Your task to perform on an android device: Where can I buy a nice beach sandals? Image 0: 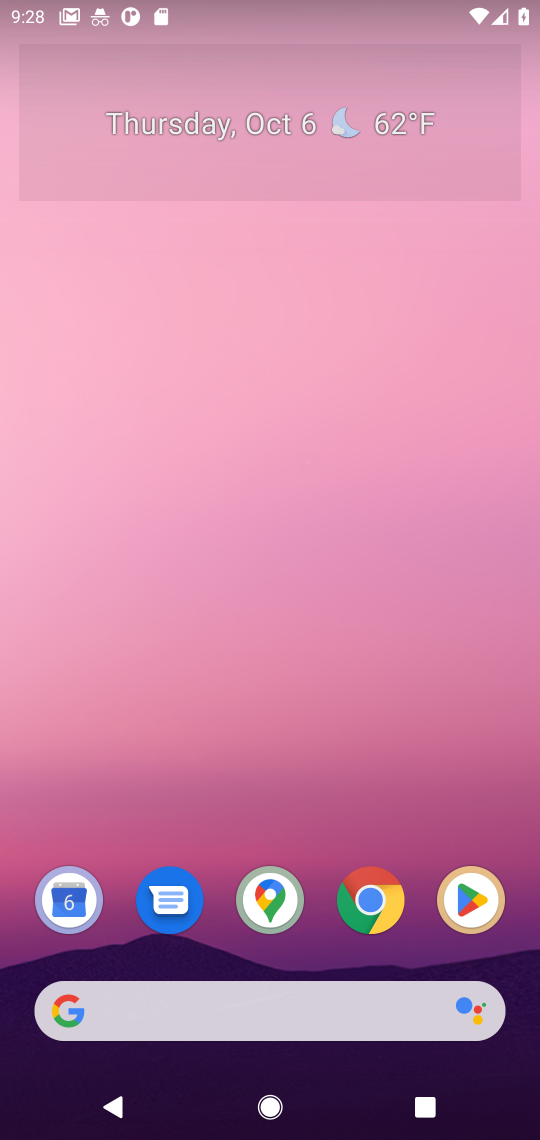
Step 0: press home button
Your task to perform on an android device: Where can I buy a nice beach sandals? Image 1: 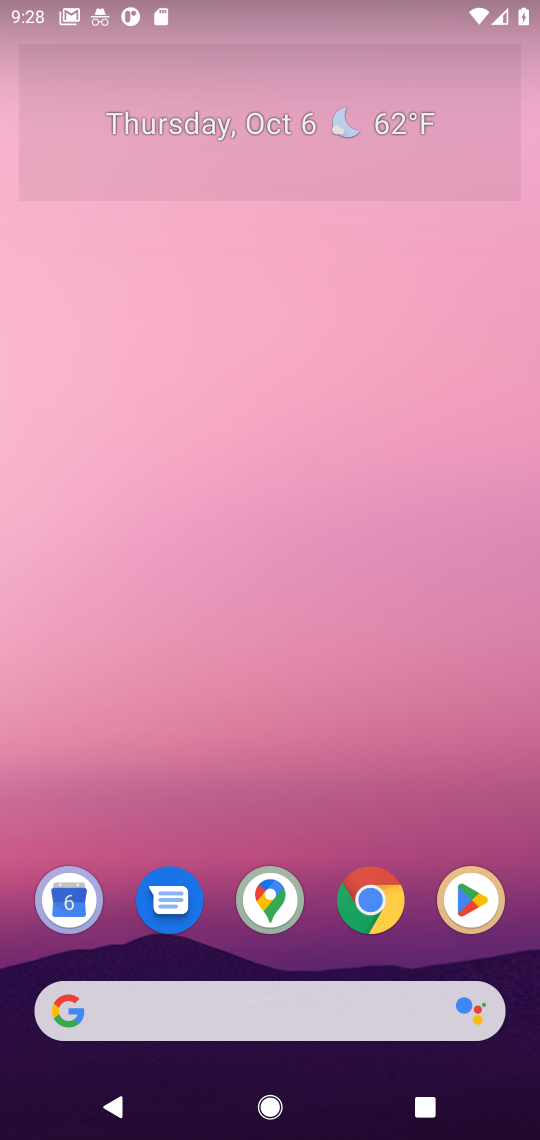
Step 1: click (316, 1016)
Your task to perform on an android device: Where can I buy a nice beach sandals? Image 2: 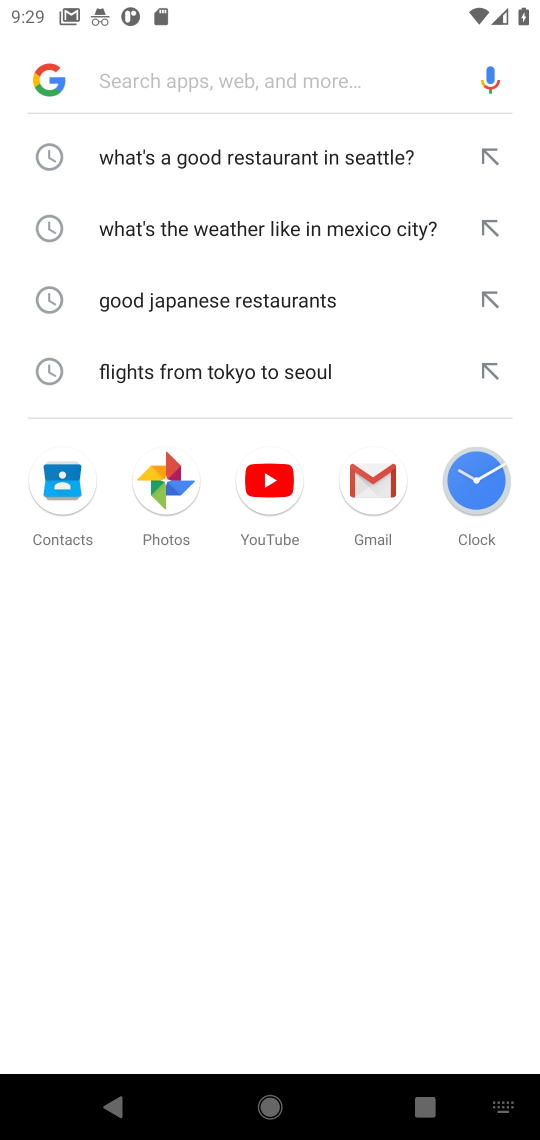
Step 2: type "Where can I buy a nice beach sandals?"
Your task to perform on an android device: Where can I buy a nice beach sandals? Image 3: 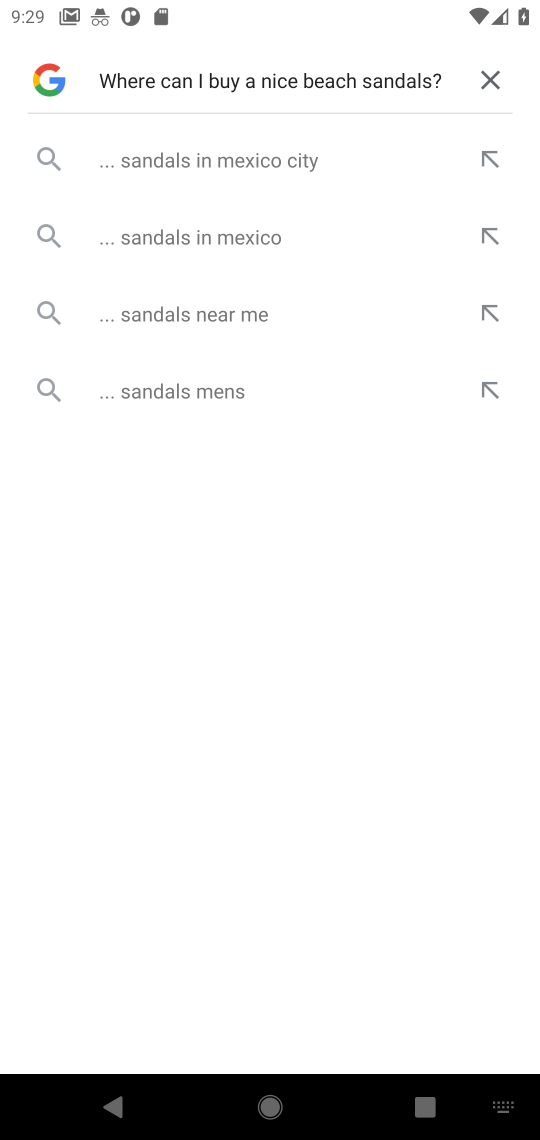
Step 3: press enter
Your task to perform on an android device: Where can I buy a nice beach sandals? Image 4: 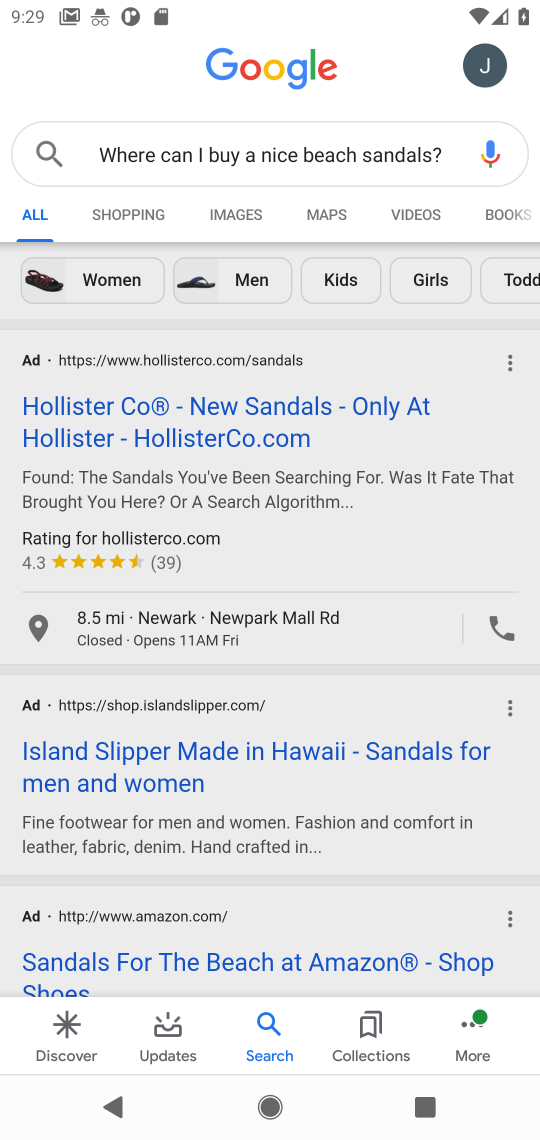
Step 4: drag from (434, 820) to (422, 577)
Your task to perform on an android device: Where can I buy a nice beach sandals? Image 5: 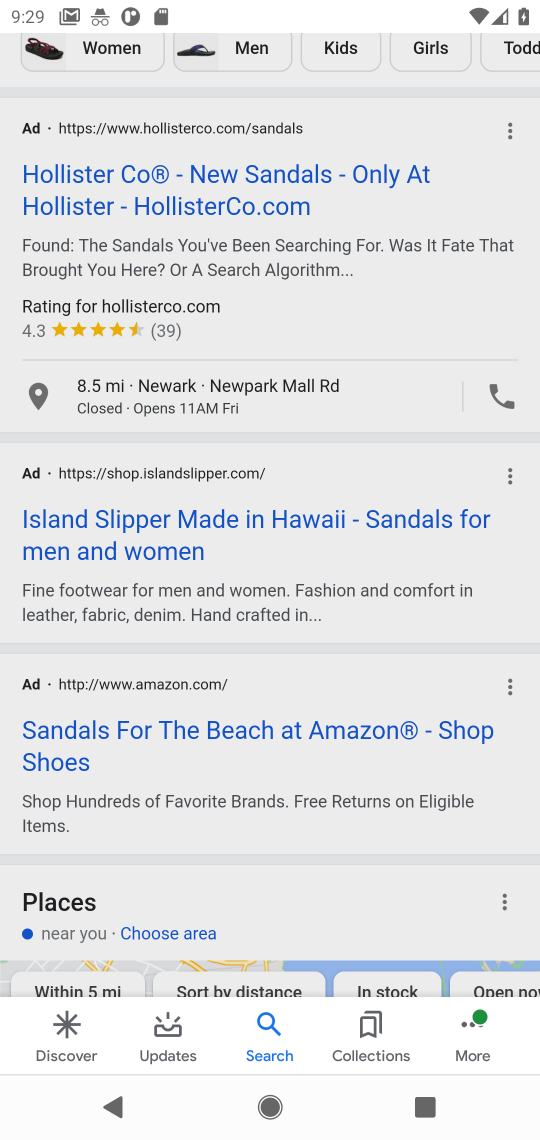
Step 5: drag from (329, 825) to (335, 546)
Your task to perform on an android device: Where can I buy a nice beach sandals? Image 6: 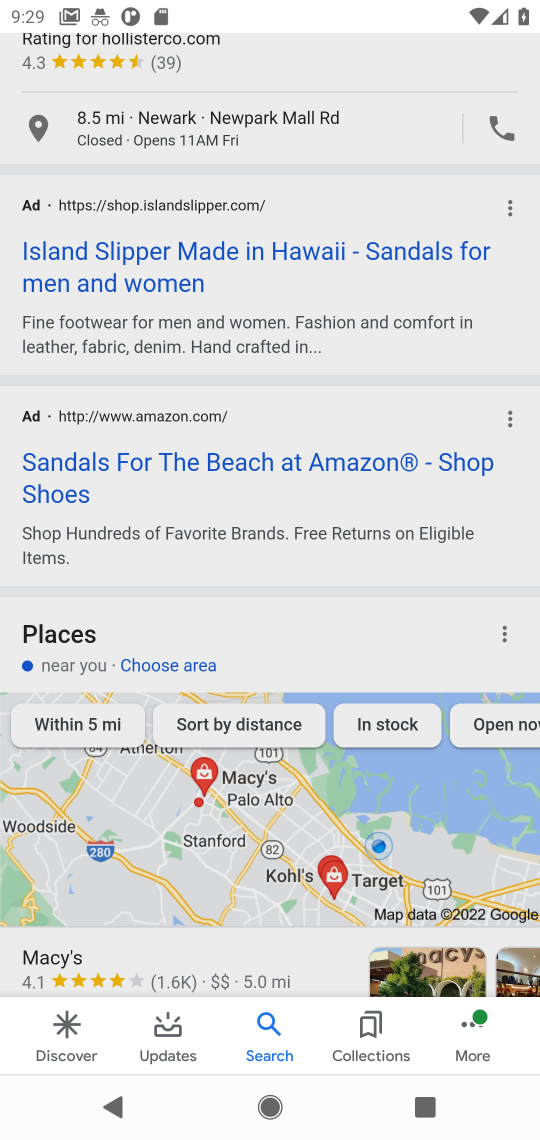
Step 6: click (318, 605)
Your task to perform on an android device: Where can I buy a nice beach sandals? Image 7: 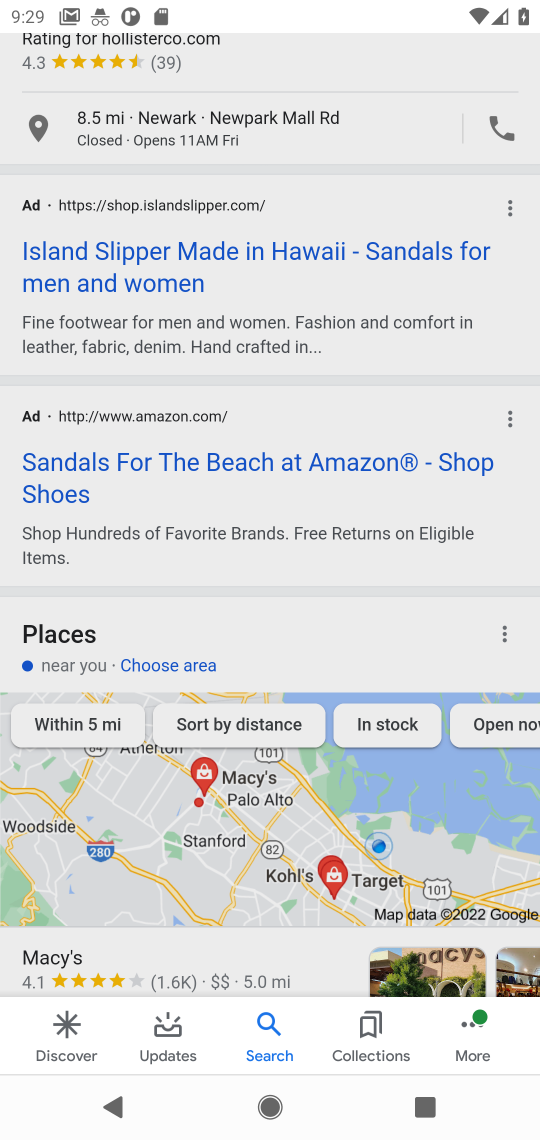
Step 7: click (291, 461)
Your task to perform on an android device: Where can I buy a nice beach sandals? Image 8: 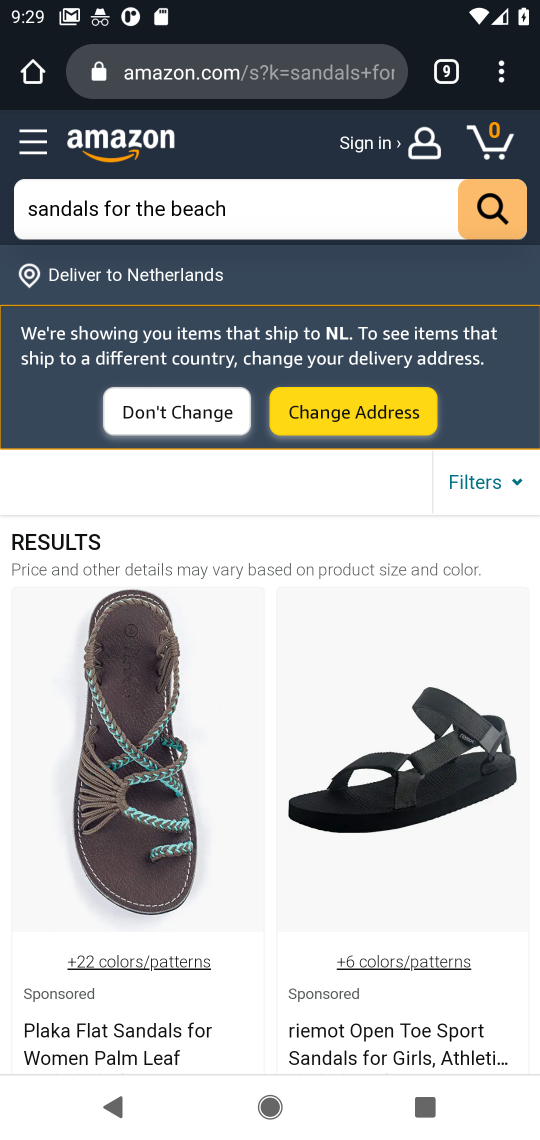
Step 8: task complete